Your task to perform on an android device: open app "Viber Messenger" (install if not already installed) Image 0: 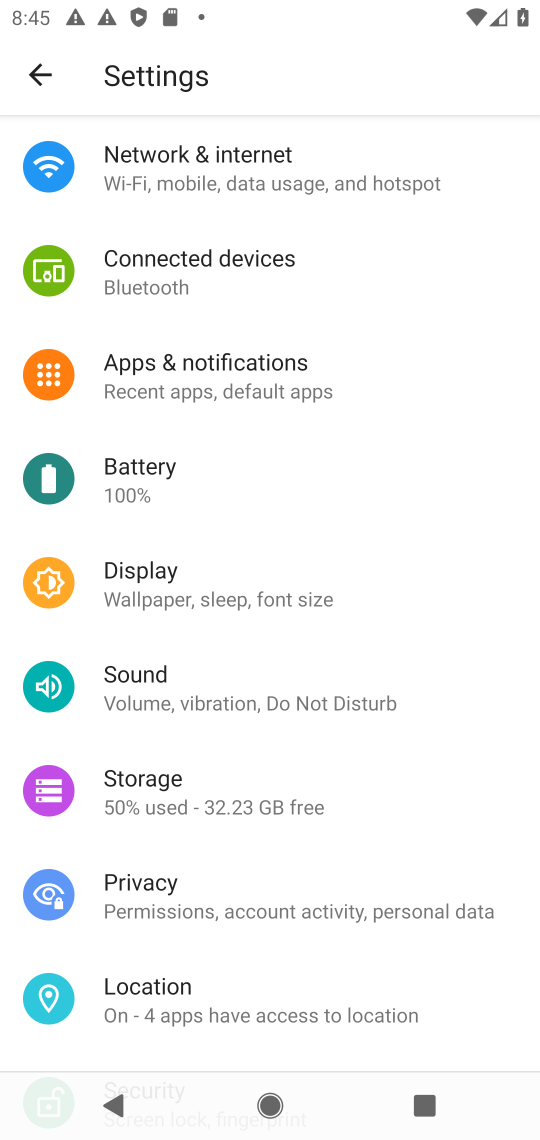
Step 0: press home button
Your task to perform on an android device: open app "Viber Messenger" (install if not already installed) Image 1: 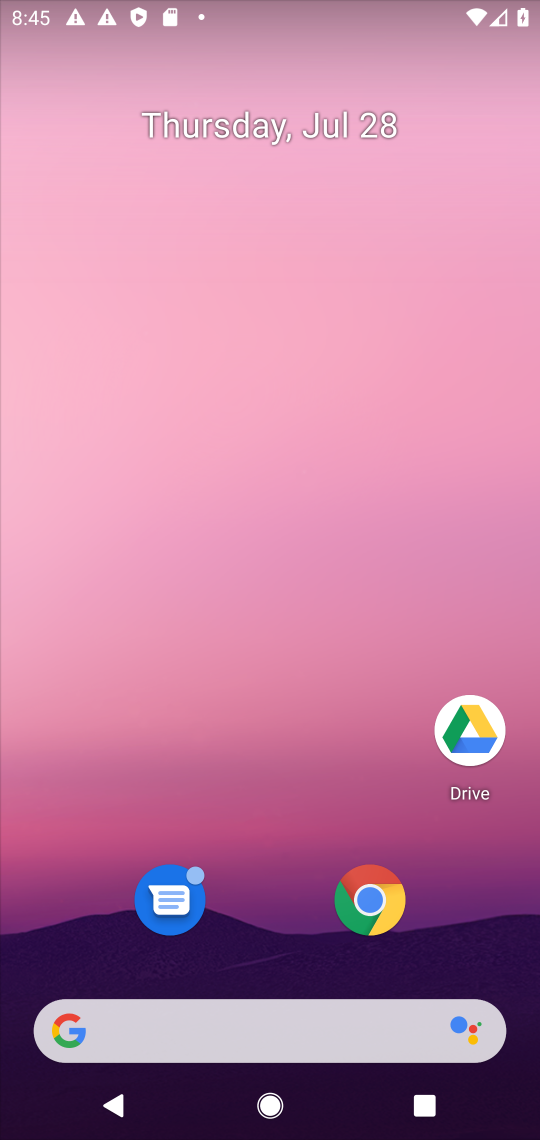
Step 1: drag from (274, 812) to (398, 105)
Your task to perform on an android device: open app "Viber Messenger" (install if not already installed) Image 2: 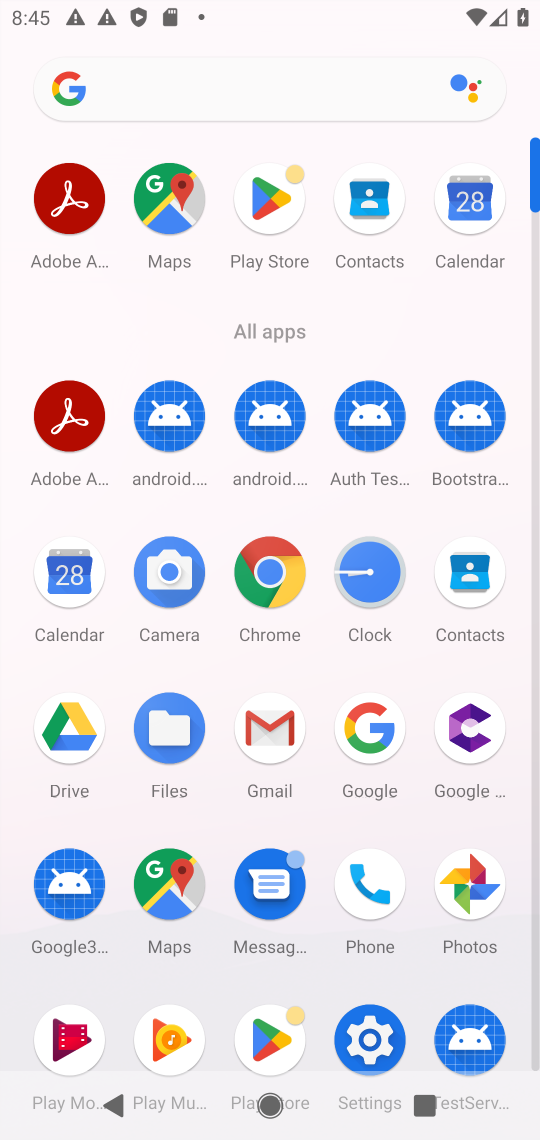
Step 2: click (257, 92)
Your task to perform on an android device: open app "Viber Messenger" (install if not already installed) Image 3: 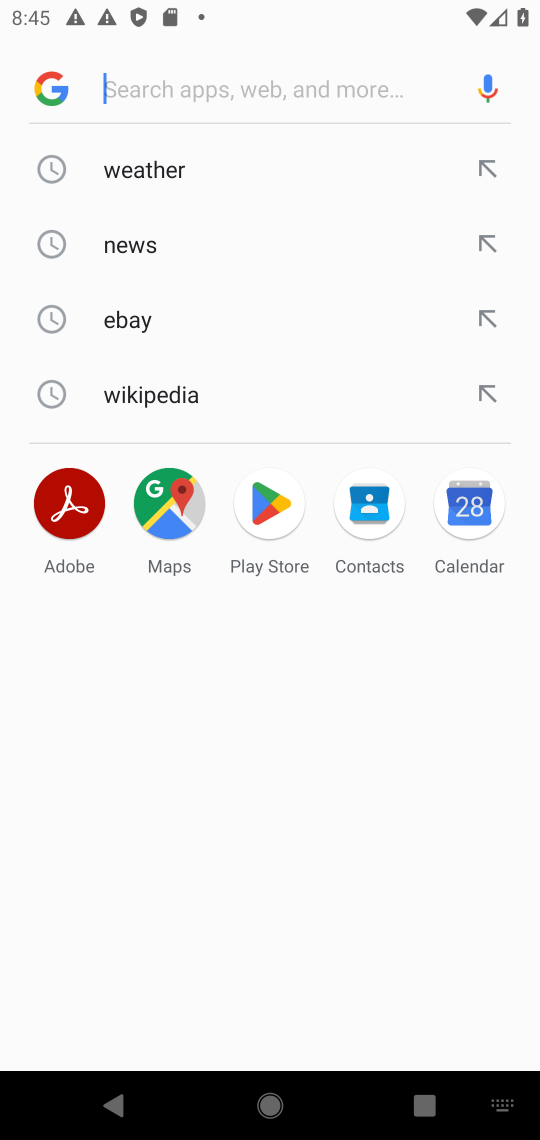
Step 3: press enter
Your task to perform on an android device: open app "Viber Messenger" (install if not already installed) Image 4: 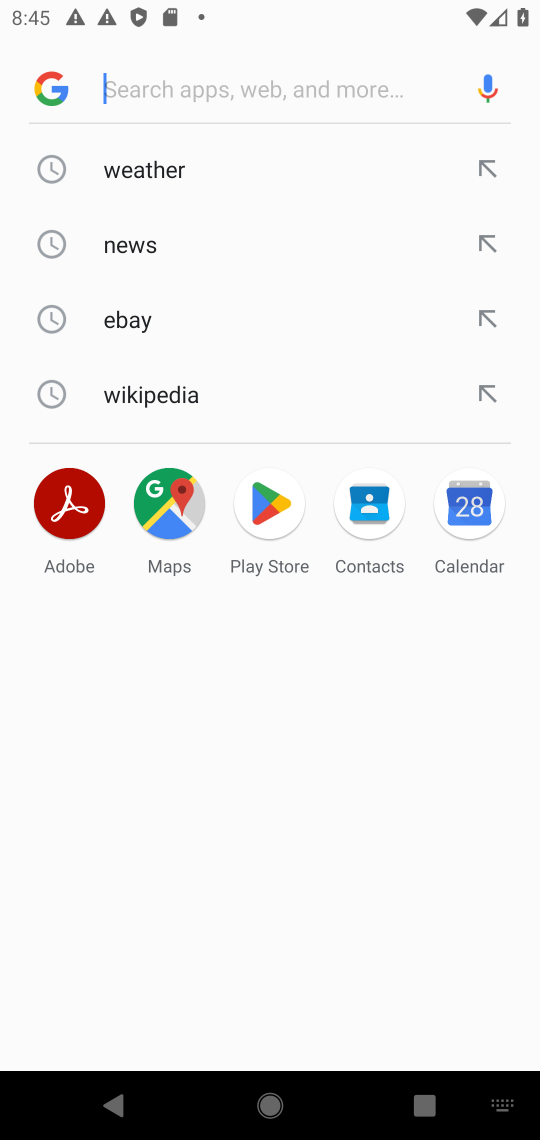
Step 4: type "Viber Messenger"
Your task to perform on an android device: open app "Viber Messenger" (install if not already installed) Image 5: 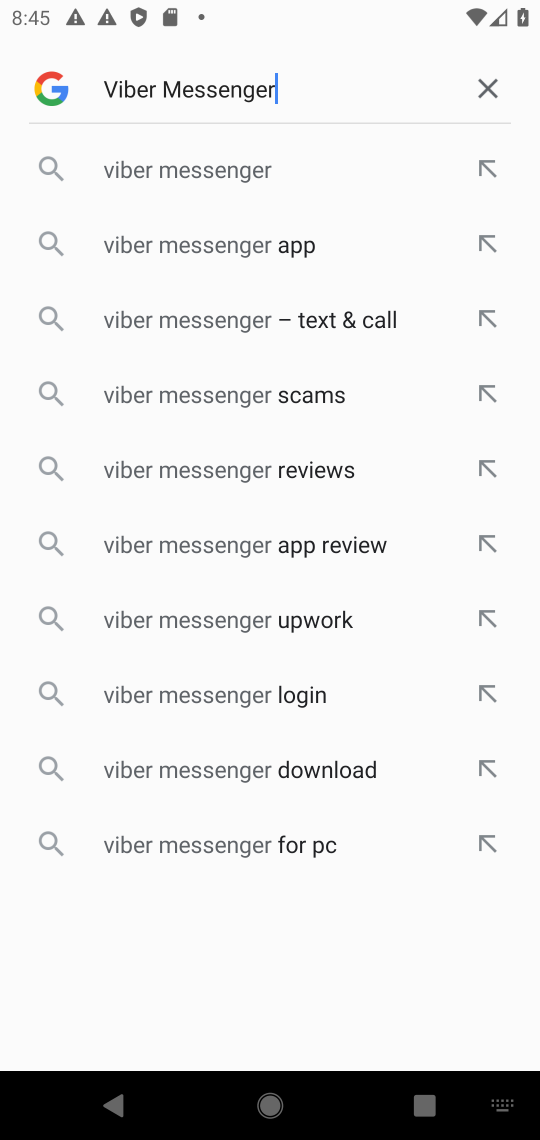
Step 5: press enter
Your task to perform on an android device: open app "Viber Messenger" (install if not already installed) Image 6: 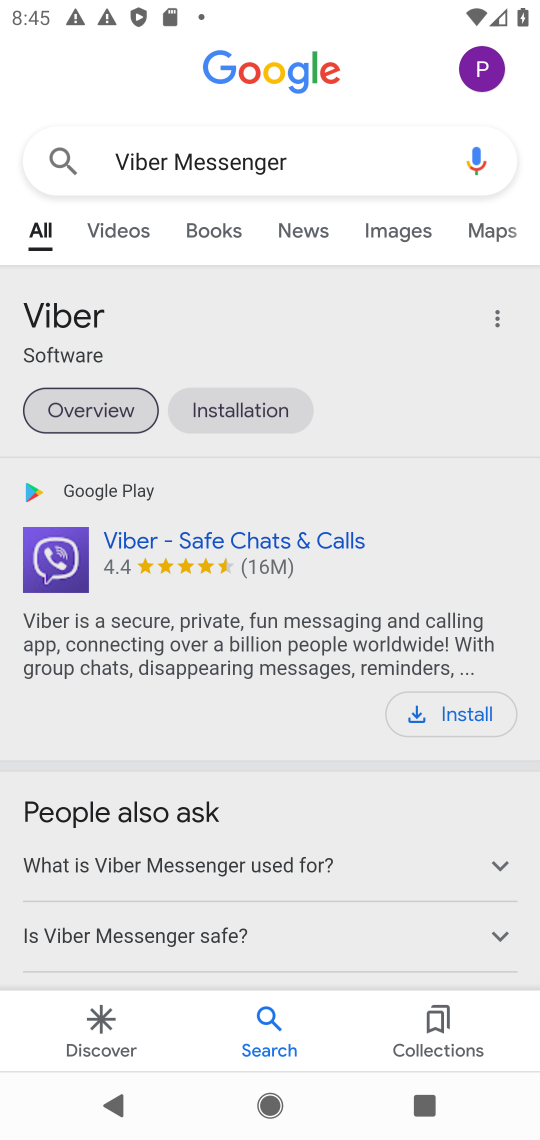
Step 6: click (213, 539)
Your task to perform on an android device: open app "Viber Messenger" (install if not already installed) Image 7: 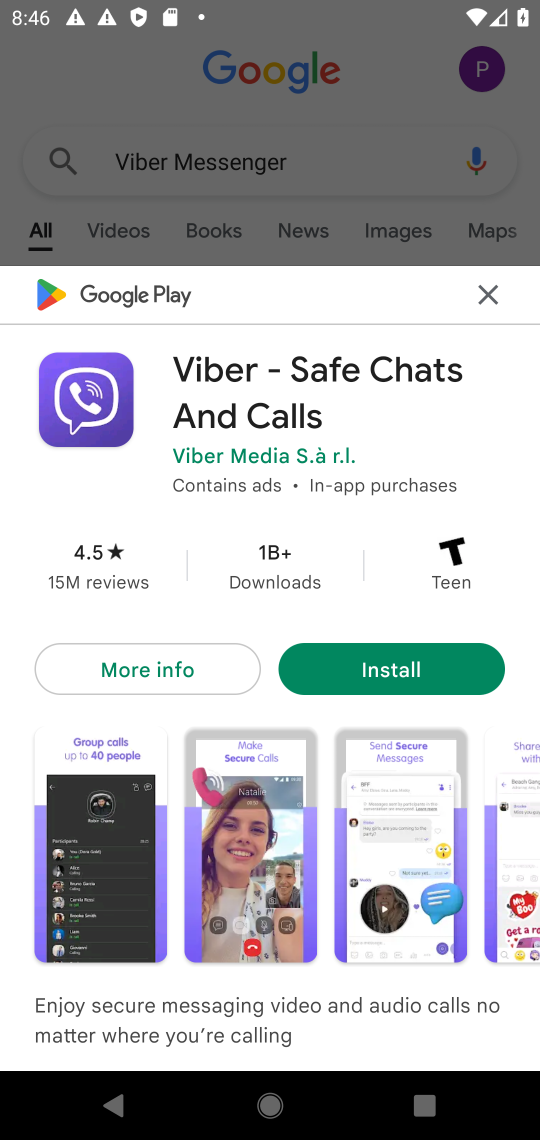
Step 7: click (399, 667)
Your task to perform on an android device: open app "Viber Messenger" (install if not already installed) Image 8: 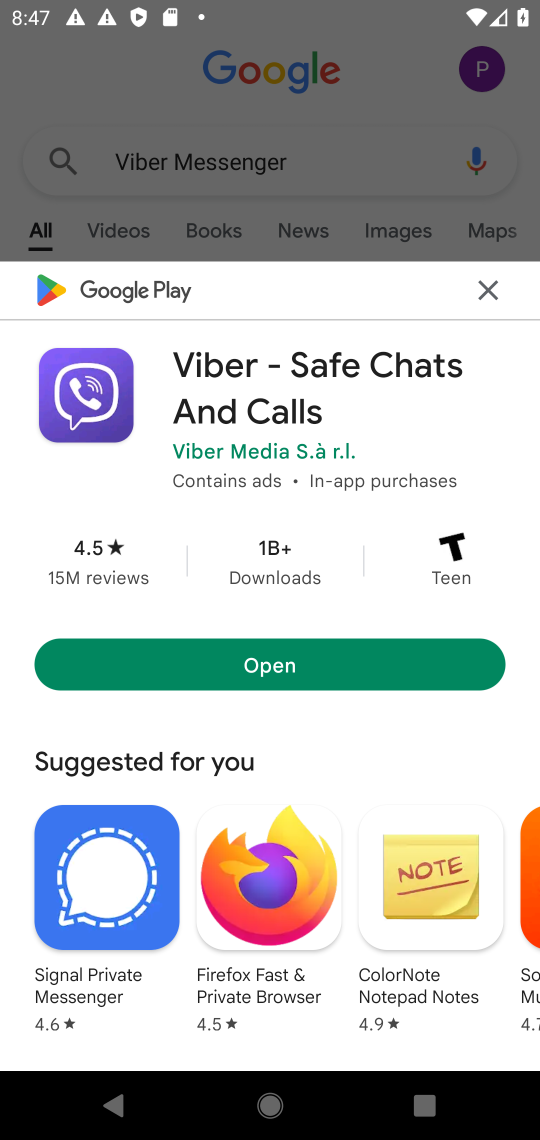
Step 8: task complete